Your task to perform on an android device: Open ESPN.com Image 0: 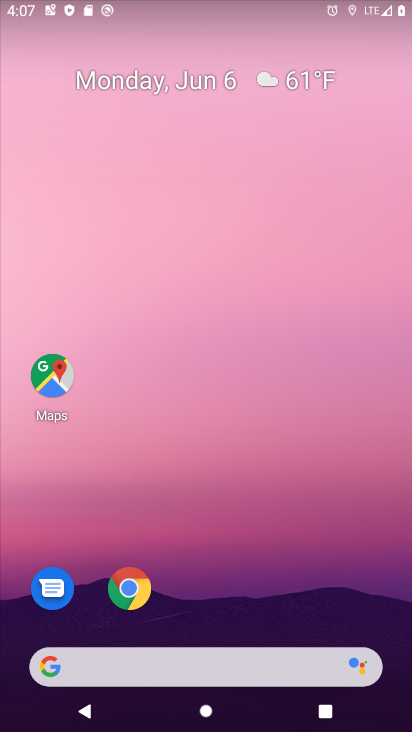
Step 0: click (141, 598)
Your task to perform on an android device: Open ESPN.com Image 1: 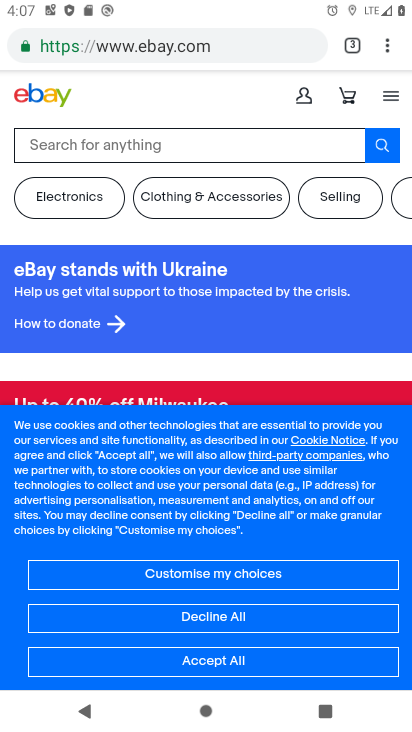
Step 1: click (353, 43)
Your task to perform on an android device: Open ESPN.com Image 2: 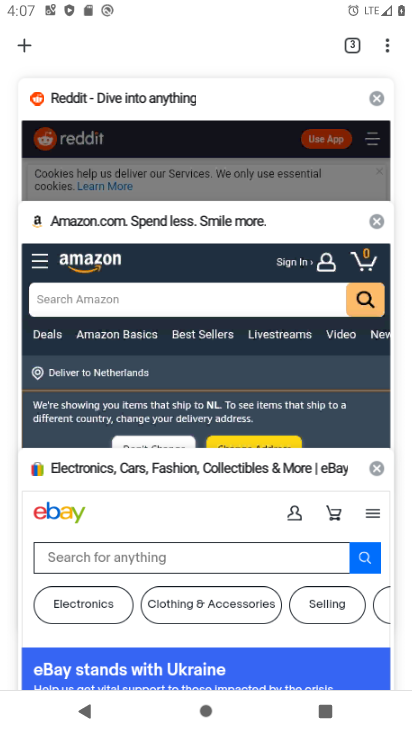
Step 2: click (21, 47)
Your task to perform on an android device: Open ESPN.com Image 3: 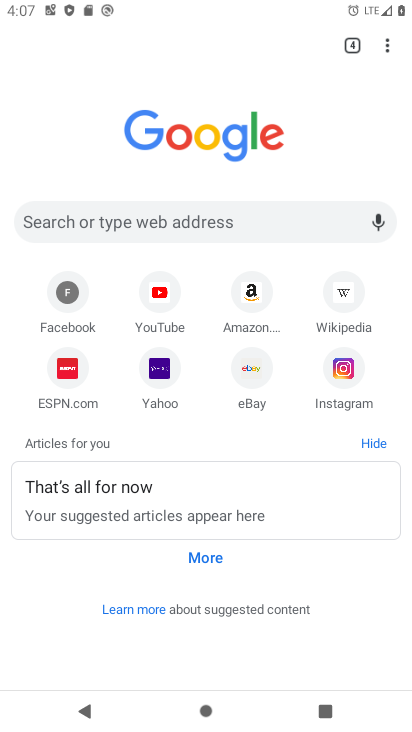
Step 3: click (60, 387)
Your task to perform on an android device: Open ESPN.com Image 4: 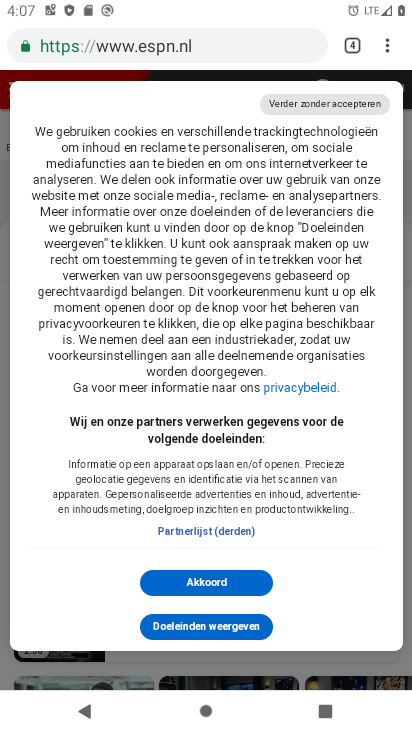
Step 4: click (204, 587)
Your task to perform on an android device: Open ESPN.com Image 5: 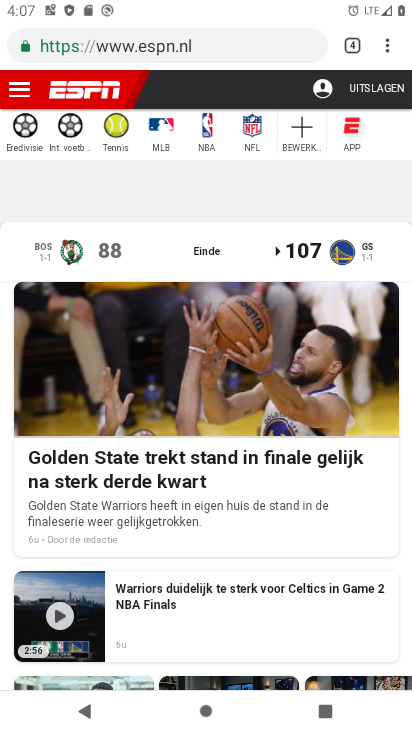
Step 5: task complete